Your task to perform on an android device: Open notification settings Image 0: 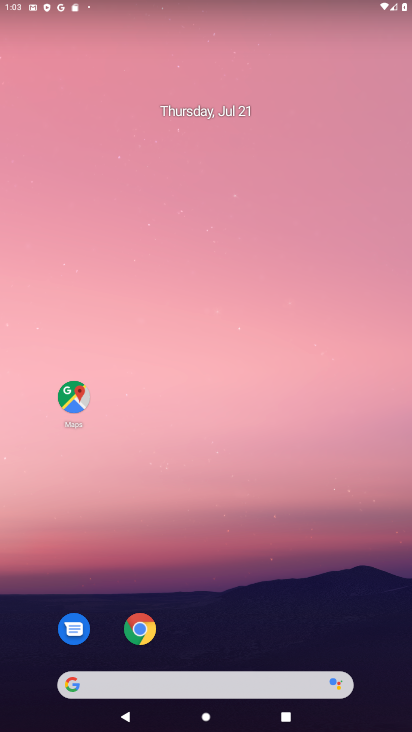
Step 0: drag from (250, 594) to (257, 149)
Your task to perform on an android device: Open notification settings Image 1: 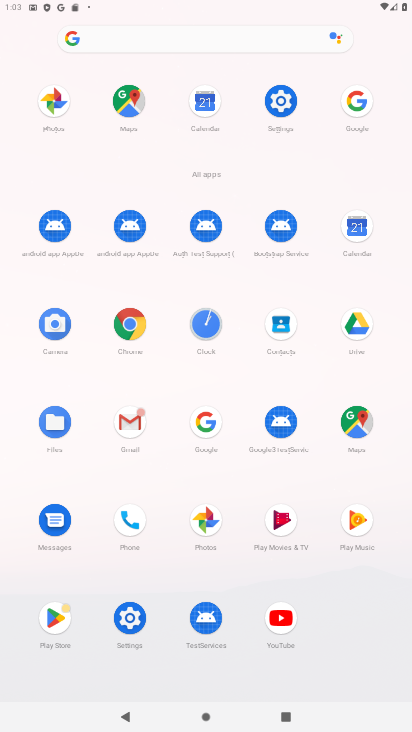
Step 1: click (281, 98)
Your task to perform on an android device: Open notification settings Image 2: 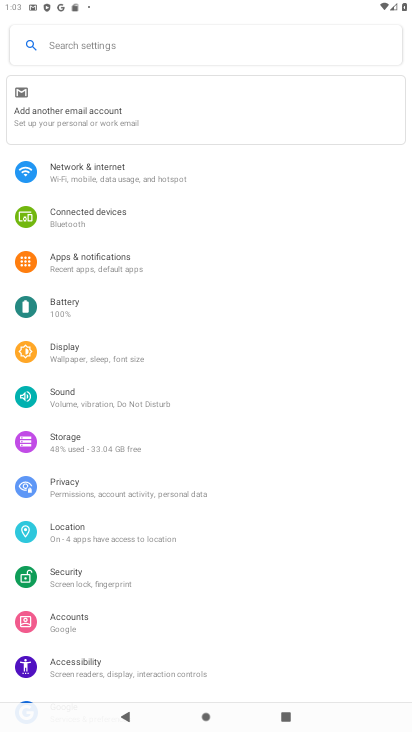
Step 2: click (103, 262)
Your task to perform on an android device: Open notification settings Image 3: 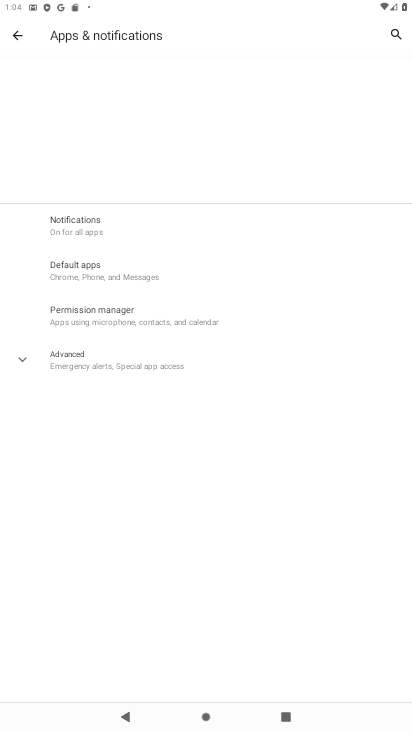
Step 3: click (99, 227)
Your task to perform on an android device: Open notification settings Image 4: 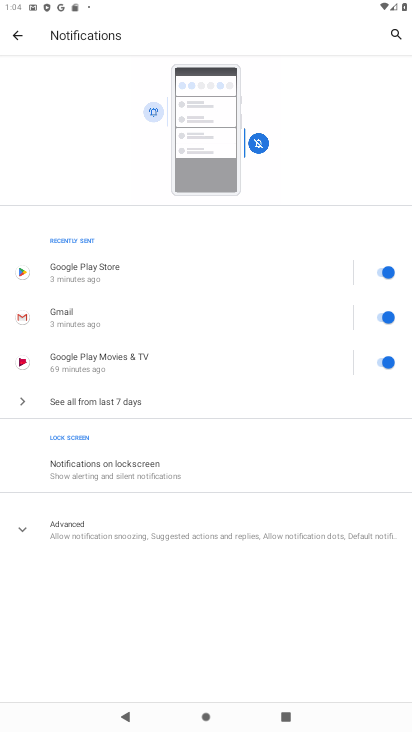
Step 4: task complete